Your task to perform on an android device: Go to settings Image 0: 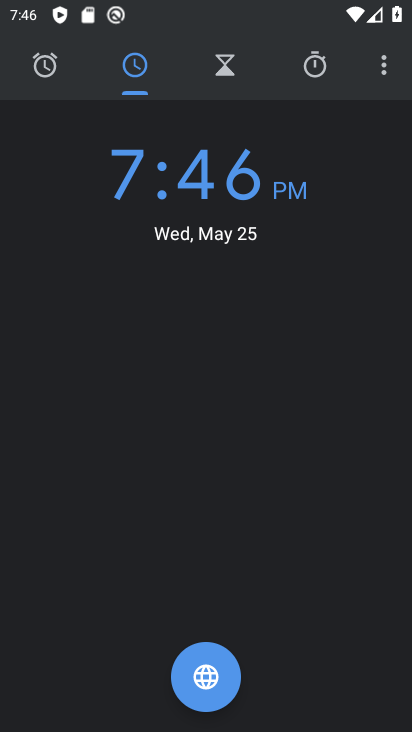
Step 0: press home button
Your task to perform on an android device: Go to settings Image 1: 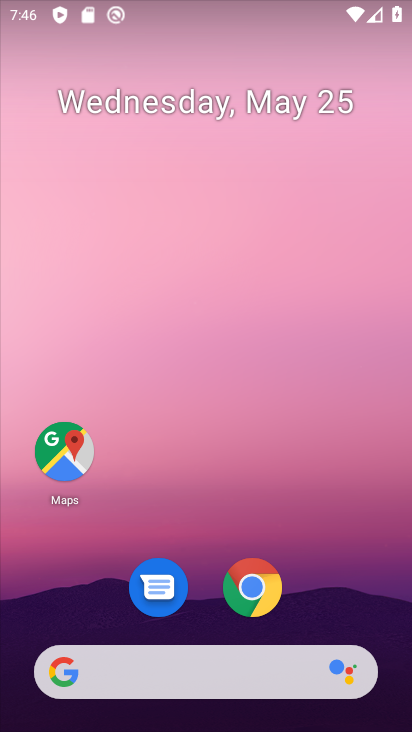
Step 1: drag from (334, 606) to (371, 81)
Your task to perform on an android device: Go to settings Image 2: 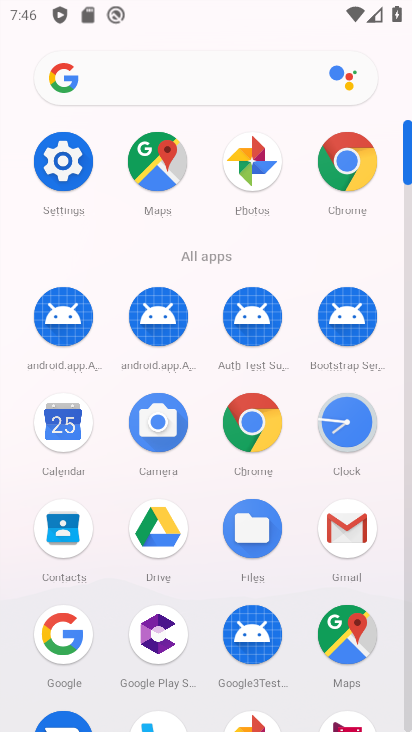
Step 2: click (67, 160)
Your task to perform on an android device: Go to settings Image 3: 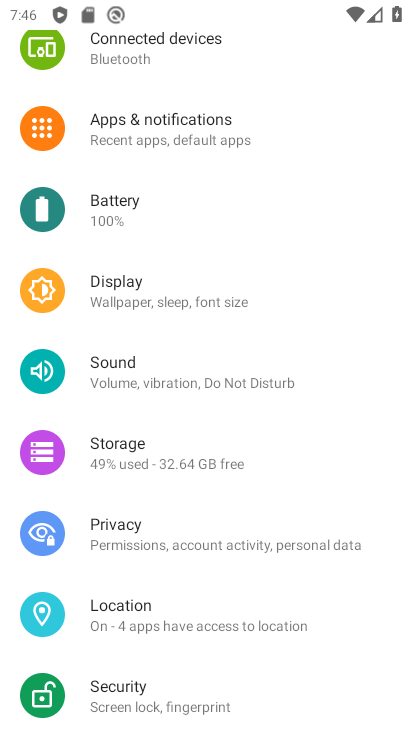
Step 3: task complete